Your task to perform on an android device: allow notifications from all sites in the chrome app Image 0: 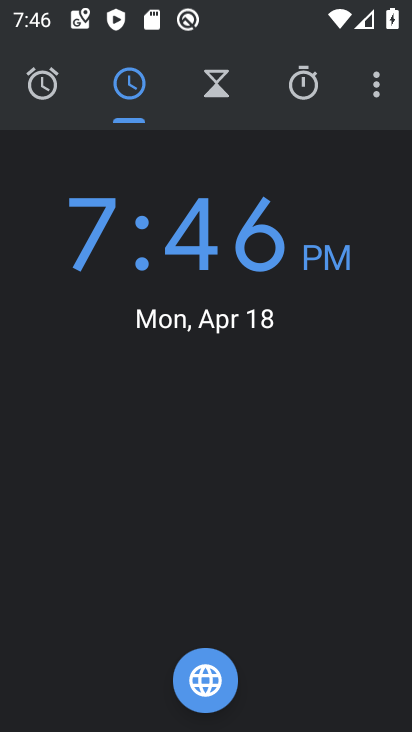
Step 0: press home button
Your task to perform on an android device: allow notifications from all sites in the chrome app Image 1: 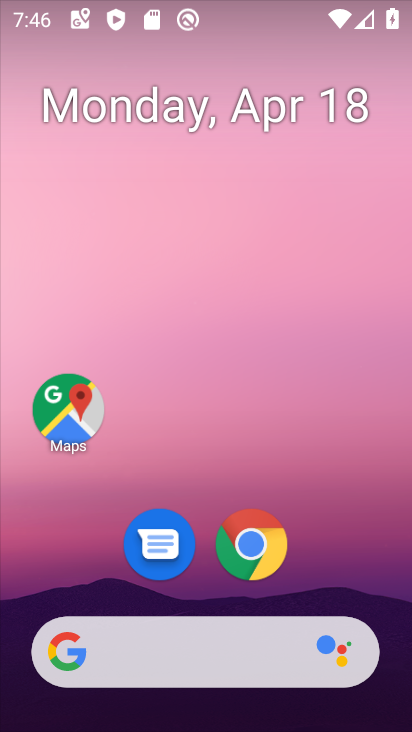
Step 1: click (249, 551)
Your task to perform on an android device: allow notifications from all sites in the chrome app Image 2: 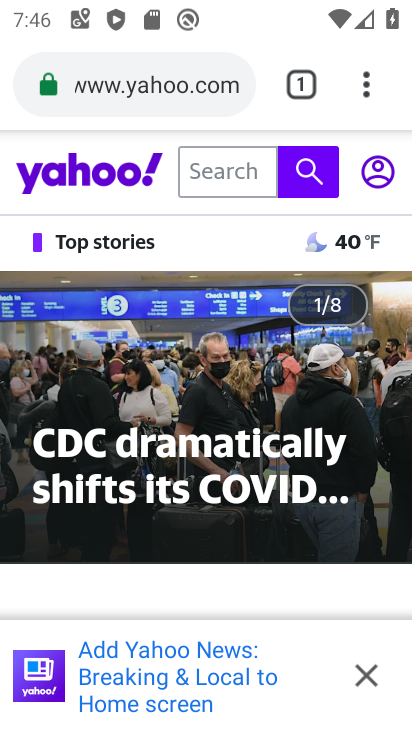
Step 2: click (364, 88)
Your task to perform on an android device: allow notifications from all sites in the chrome app Image 3: 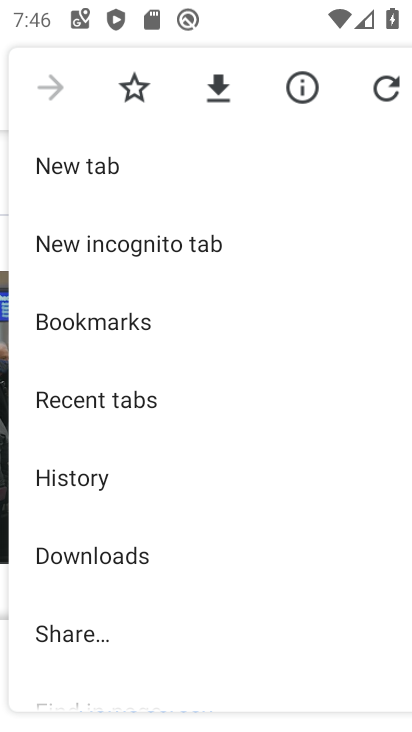
Step 3: drag from (152, 614) to (157, 205)
Your task to perform on an android device: allow notifications from all sites in the chrome app Image 4: 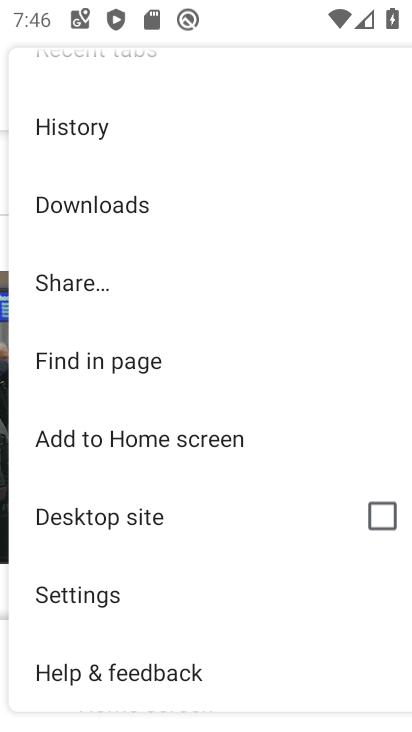
Step 4: click (115, 598)
Your task to perform on an android device: allow notifications from all sites in the chrome app Image 5: 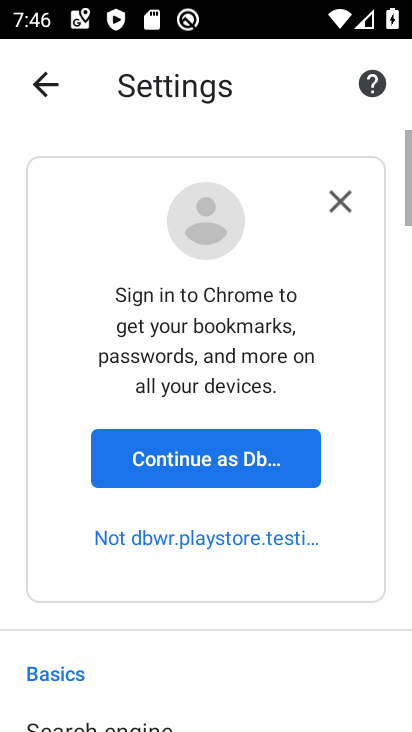
Step 5: drag from (284, 657) to (299, 276)
Your task to perform on an android device: allow notifications from all sites in the chrome app Image 6: 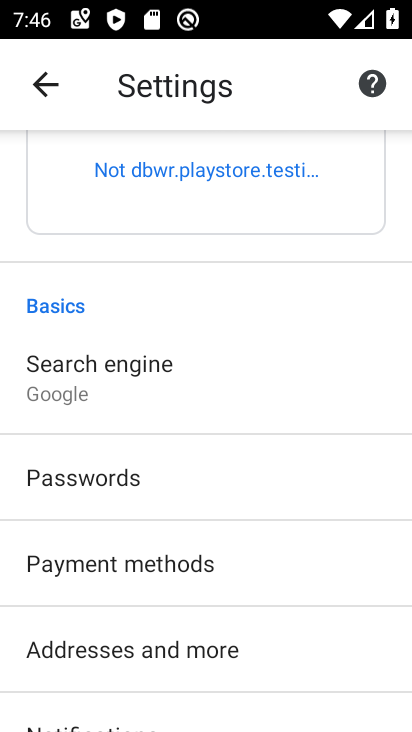
Step 6: drag from (255, 555) to (267, 252)
Your task to perform on an android device: allow notifications from all sites in the chrome app Image 7: 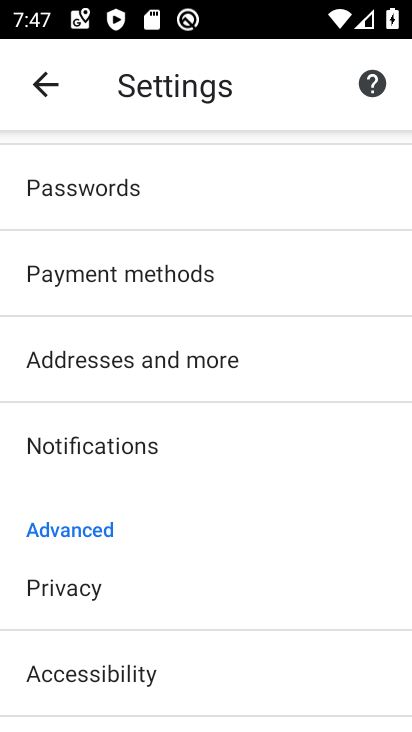
Step 7: click (98, 449)
Your task to perform on an android device: allow notifications from all sites in the chrome app Image 8: 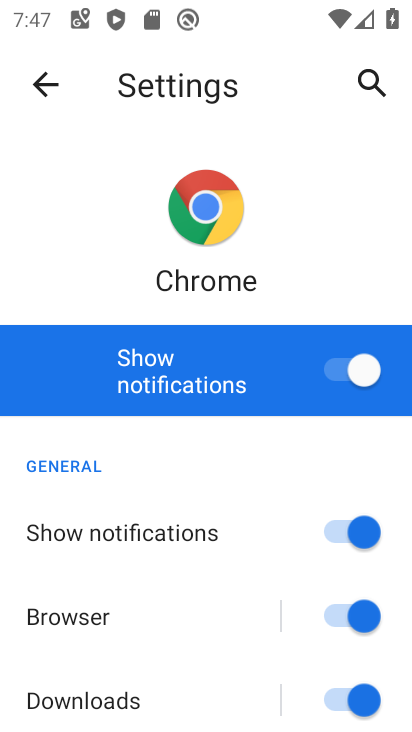
Step 8: task complete